Your task to perform on an android device: When is my next meeting? Image 0: 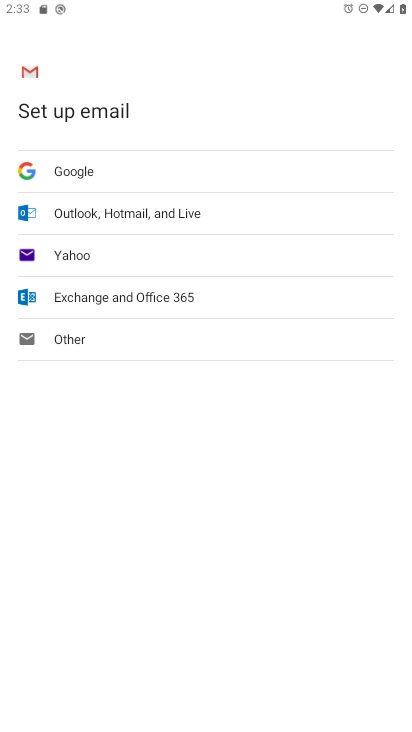
Step 0: press home button
Your task to perform on an android device: When is my next meeting? Image 1: 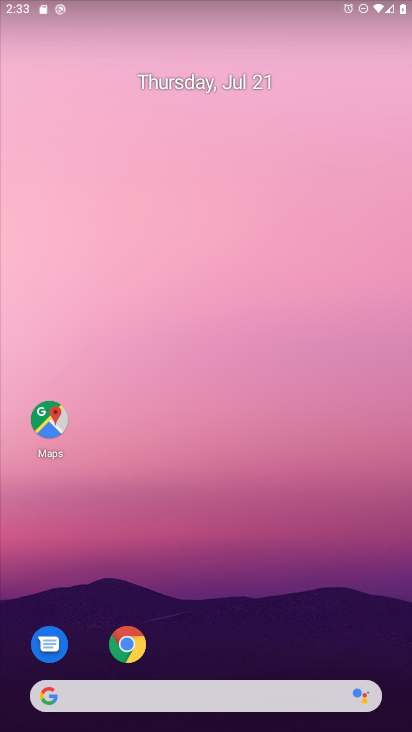
Step 1: drag from (124, 680) to (168, 408)
Your task to perform on an android device: When is my next meeting? Image 2: 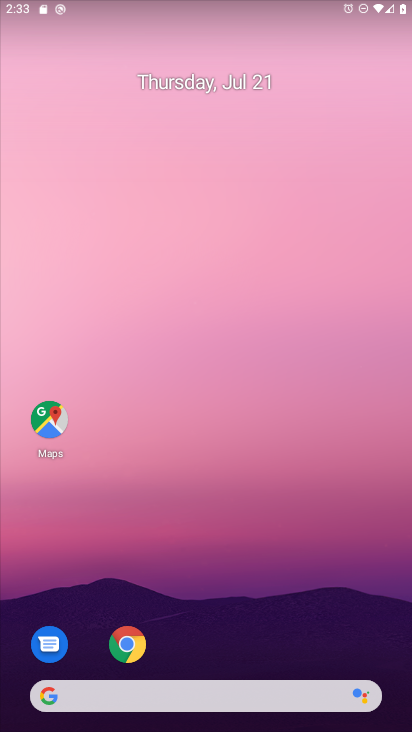
Step 2: drag from (206, 665) to (269, 252)
Your task to perform on an android device: When is my next meeting? Image 3: 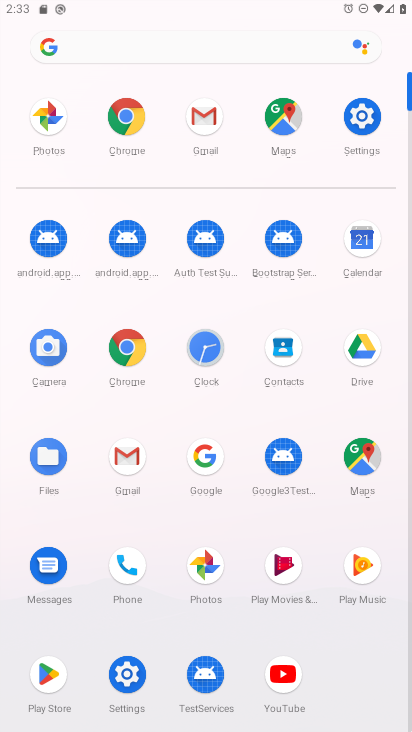
Step 3: click (366, 246)
Your task to perform on an android device: When is my next meeting? Image 4: 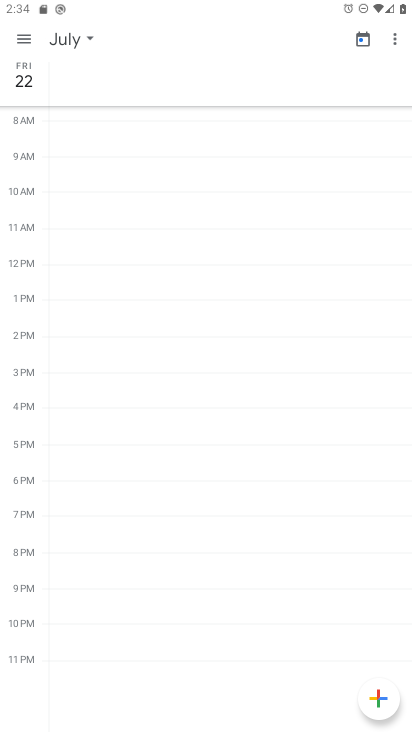
Step 4: click (68, 37)
Your task to perform on an android device: When is my next meeting? Image 5: 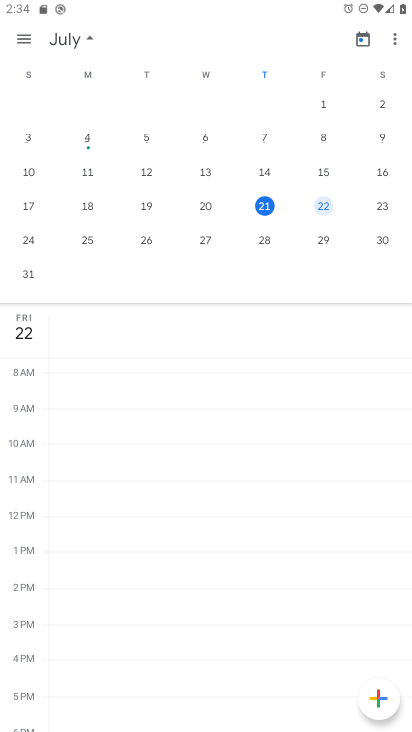
Step 5: click (17, 44)
Your task to perform on an android device: When is my next meeting? Image 6: 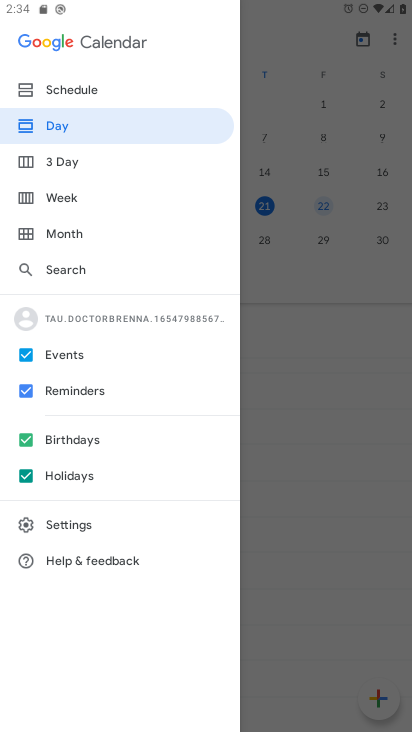
Step 6: click (46, 99)
Your task to perform on an android device: When is my next meeting? Image 7: 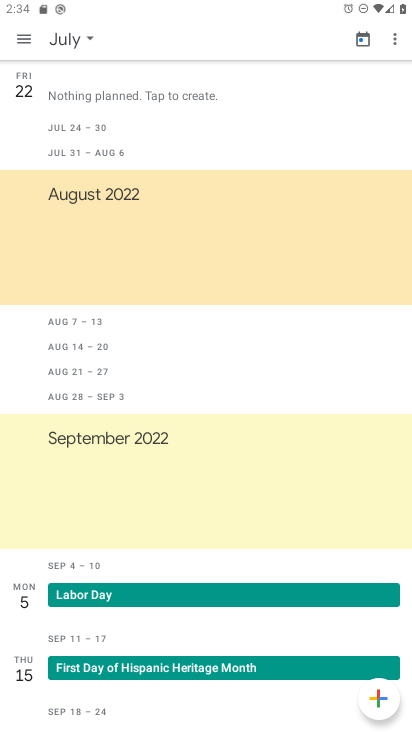
Step 7: task complete